Your task to perform on an android device: Clear the shopping cart on bestbuy. Search for logitech g502 on bestbuy, select the first entry, add it to the cart, then select checkout. Image 0: 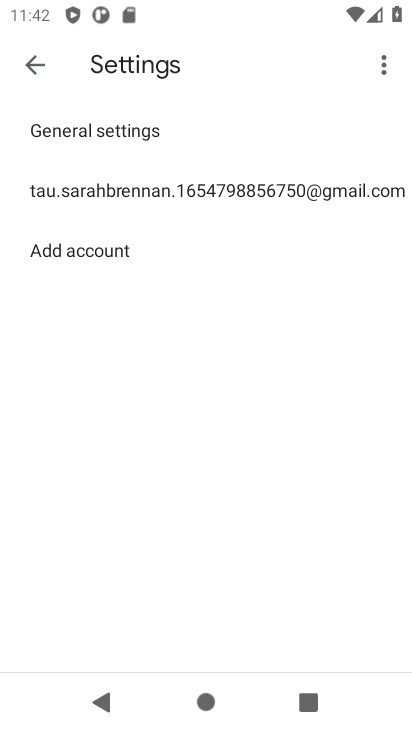
Step 0: press home button
Your task to perform on an android device: Clear the shopping cart on bestbuy. Search for logitech g502 on bestbuy, select the first entry, add it to the cart, then select checkout. Image 1: 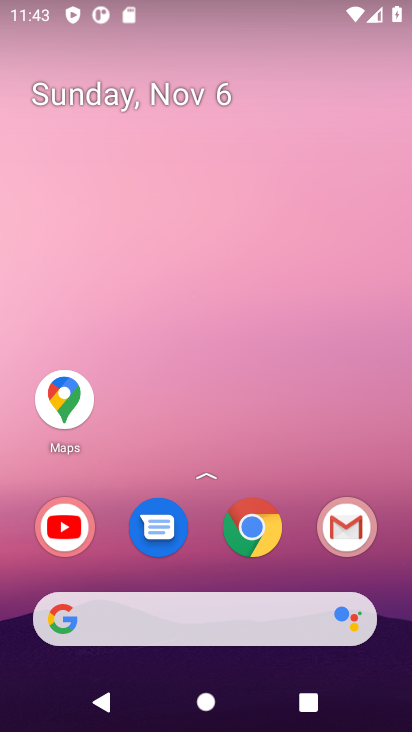
Step 1: drag from (250, 519) to (33, 75)
Your task to perform on an android device: Clear the shopping cart on bestbuy. Search for logitech g502 on bestbuy, select the first entry, add it to the cart, then select checkout. Image 2: 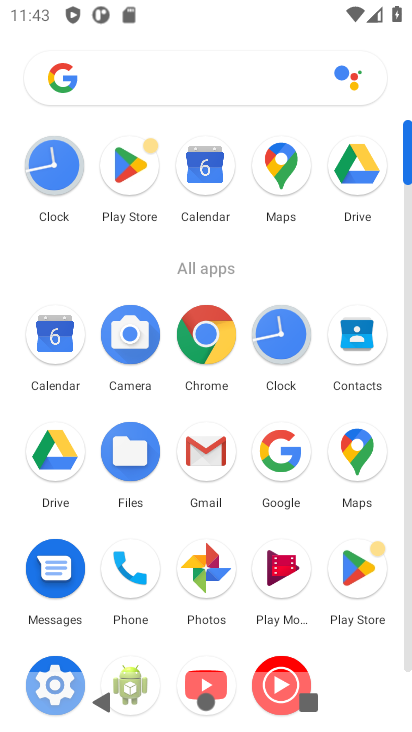
Step 2: click (219, 358)
Your task to perform on an android device: Clear the shopping cart on bestbuy. Search for logitech g502 on bestbuy, select the first entry, add it to the cart, then select checkout. Image 3: 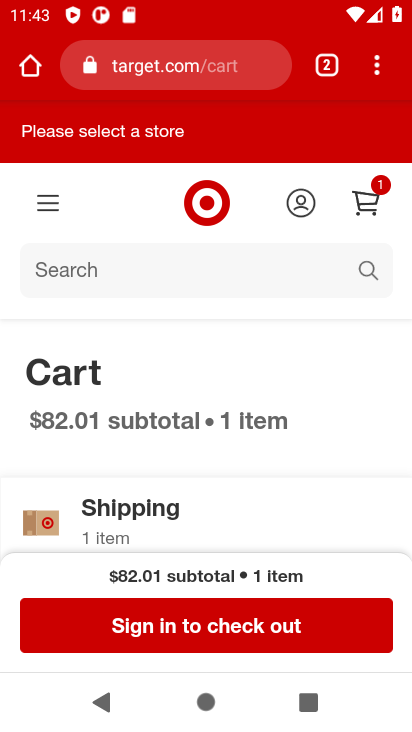
Step 3: click (138, 74)
Your task to perform on an android device: Clear the shopping cart on bestbuy. Search for logitech g502 on bestbuy, select the first entry, add it to the cart, then select checkout. Image 4: 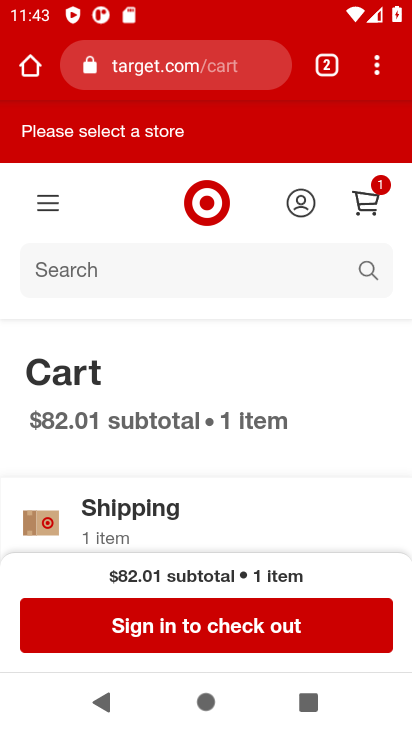
Step 4: click (137, 75)
Your task to perform on an android device: Clear the shopping cart on bestbuy. Search for logitech g502 on bestbuy, select the first entry, add it to the cart, then select checkout. Image 5: 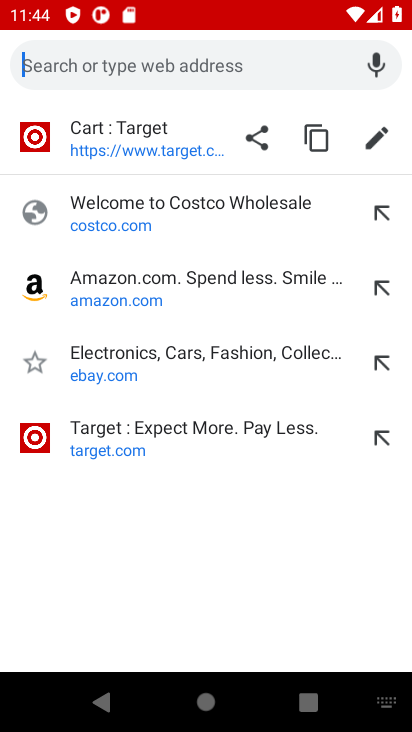
Step 5: type "bestbuy"
Your task to perform on an android device: Clear the shopping cart on bestbuy. Search for logitech g502 on bestbuy, select the first entry, add it to the cart, then select checkout. Image 6: 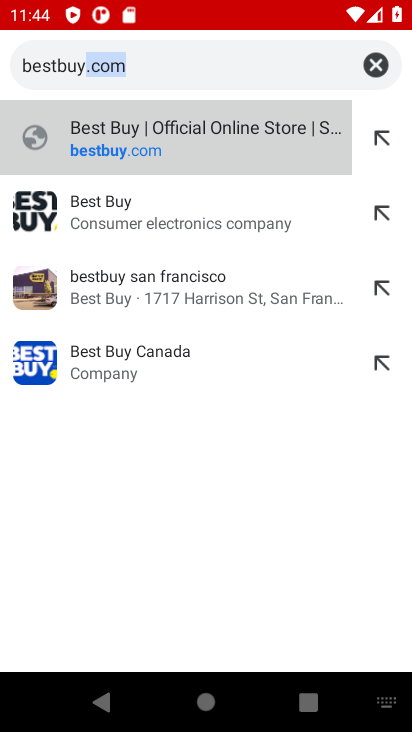
Step 6: press enter
Your task to perform on an android device: Clear the shopping cart on bestbuy. Search for logitech g502 on bestbuy, select the first entry, add it to the cart, then select checkout. Image 7: 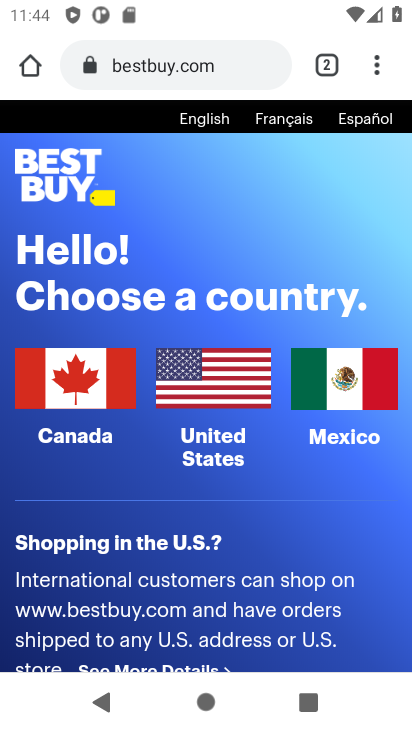
Step 7: click (98, 366)
Your task to perform on an android device: Clear the shopping cart on bestbuy. Search for logitech g502 on bestbuy, select the first entry, add it to the cart, then select checkout. Image 8: 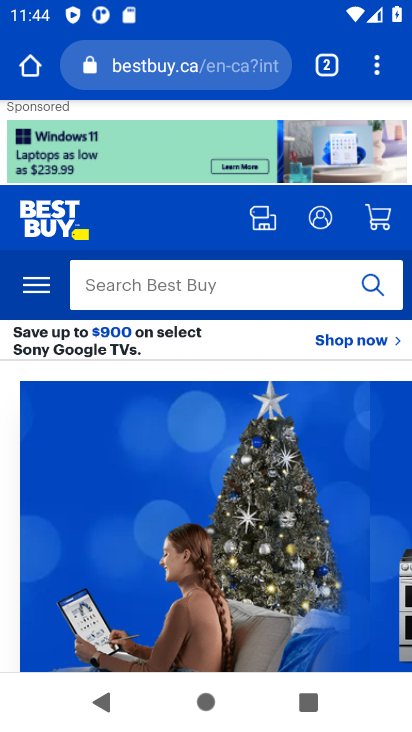
Step 8: click (388, 231)
Your task to perform on an android device: Clear the shopping cart on bestbuy. Search for logitech g502 on bestbuy, select the first entry, add it to the cart, then select checkout. Image 9: 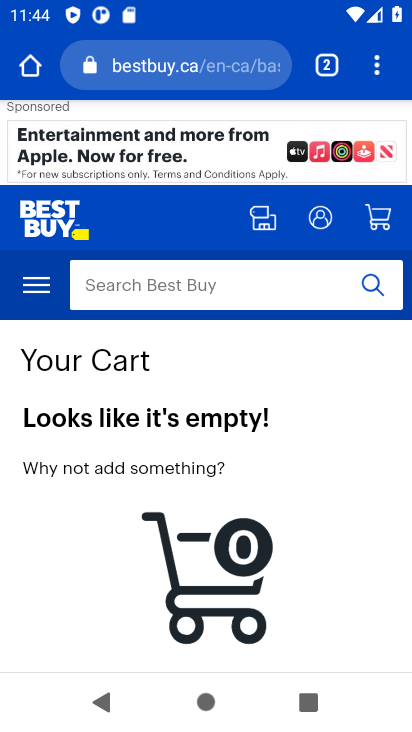
Step 9: click (204, 285)
Your task to perform on an android device: Clear the shopping cart on bestbuy. Search for logitech g502 on bestbuy, select the first entry, add it to the cart, then select checkout. Image 10: 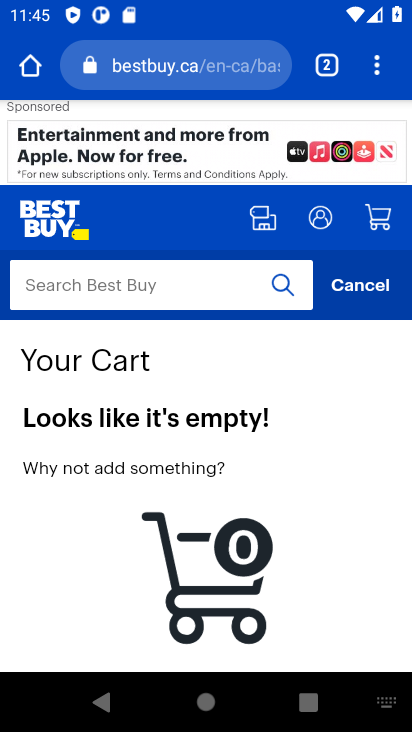
Step 10: type "logitech g502"
Your task to perform on an android device: Clear the shopping cart on bestbuy. Search for logitech g502 on bestbuy, select the first entry, add it to the cart, then select checkout. Image 11: 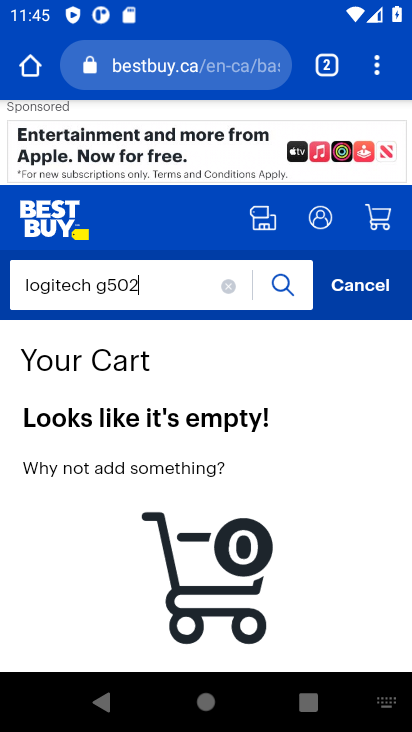
Step 11: press enter
Your task to perform on an android device: Clear the shopping cart on bestbuy. Search for logitech g502 on bestbuy, select the first entry, add it to the cart, then select checkout. Image 12: 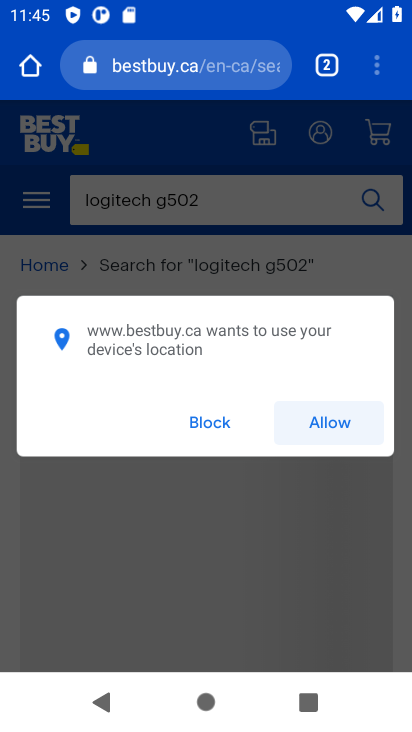
Step 12: click (353, 436)
Your task to perform on an android device: Clear the shopping cart on bestbuy. Search for logitech g502 on bestbuy, select the first entry, add it to the cart, then select checkout. Image 13: 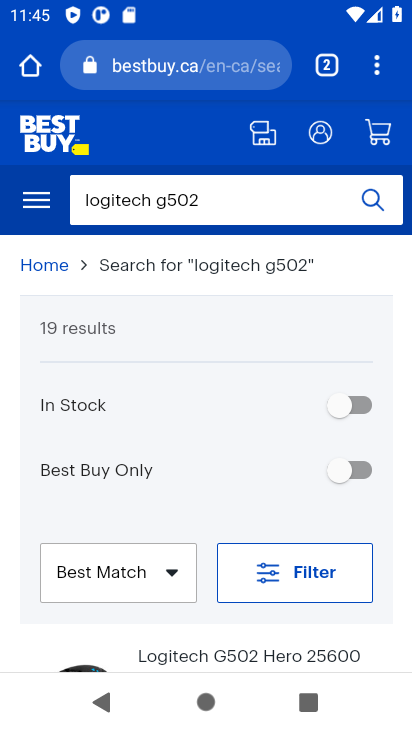
Step 13: drag from (263, 502) to (204, 266)
Your task to perform on an android device: Clear the shopping cart on bestbuy. Search for logitech g502 on bestbuy, select the first entry, add it to the cart, then select checkout. Image 14: 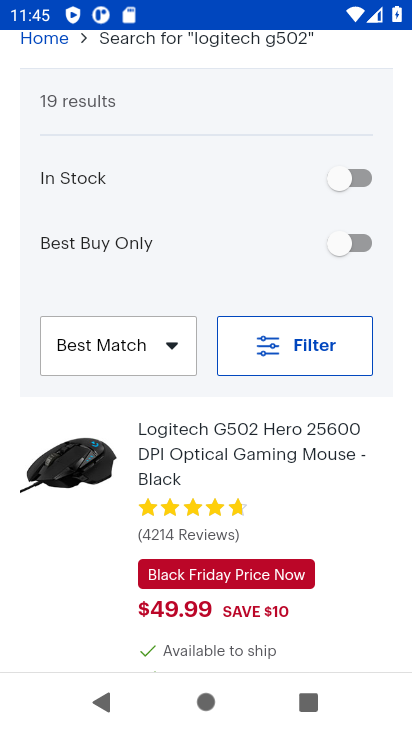
Step 14: click (180, 478)
Your task to perform on an android device: Clear the shopping cart on bestbuy. Search for logitech g502 on bestbuy, select the first entry, add it to the cart, then select checkout. Image 15: 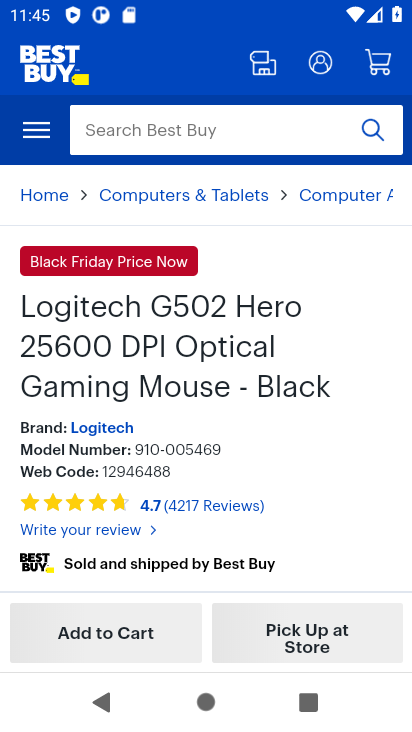
Step 15: click (154, 620)
Your task to perform on an android device: Clear the shopping cart on bestbuy. Search for logitech g502 on bestbuy, select the first entry, add it to the cart, then select checkout. Image 16: 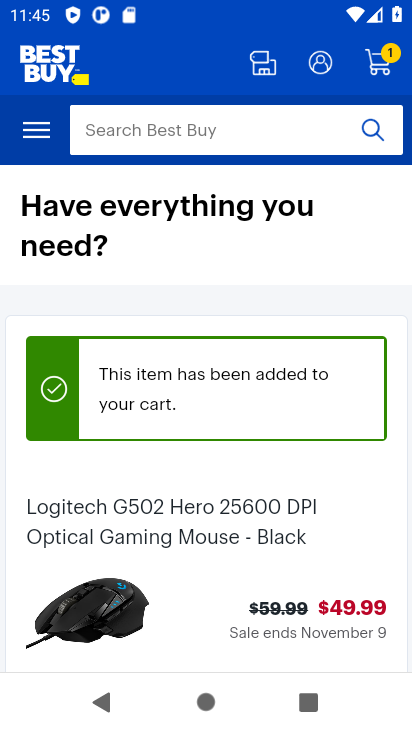
Step 16: drag from (173, 386) to (169, 349)
Your task to perform on an android device: Clear the shopping cart on bestbuy. Search for logitech g502 on bestbuy, select the first entry, add it to the cart, then select checkout. Image 17: 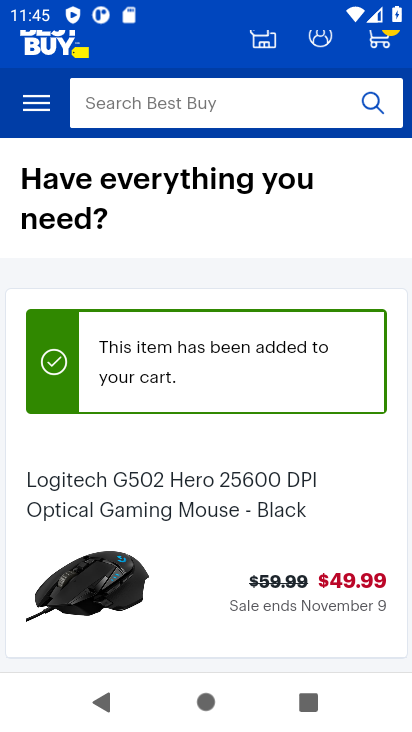
Step 17: drag from (363, 106) to (409, 422)
Your task to perform on an android device: Clear the shopping cart on bestbuy. Search for logitech g502 on bestbuy, select the first entry, add it to the cart, then select checkout. Image 18: 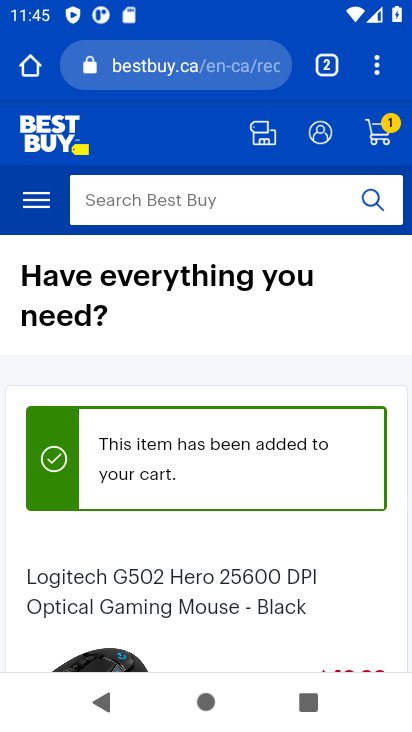
Step 18: click (372, 141)
Your task to perform on an android device: Clear the shopping cart on bestbuy. Search for logitech g502 on bestbuy, select the first entry, add it to the cart, then select checkout. Image 19: 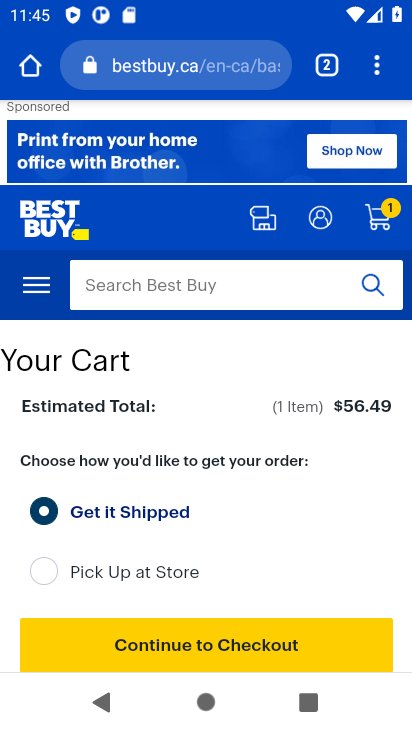
Step 19: click (275, 650)
Your task to perform on an android device: Clear the shopping cart on bestbuy. Search for logitech g502 on bestbuy, select the first entry, add it to the cart, then select checkout. Image 20: 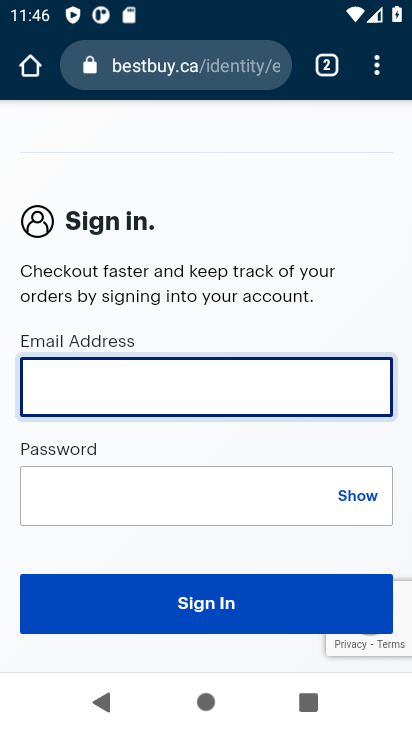
Step 20: task complete